Your task to perform on an android device: turn on bluetooth scan Image 0: 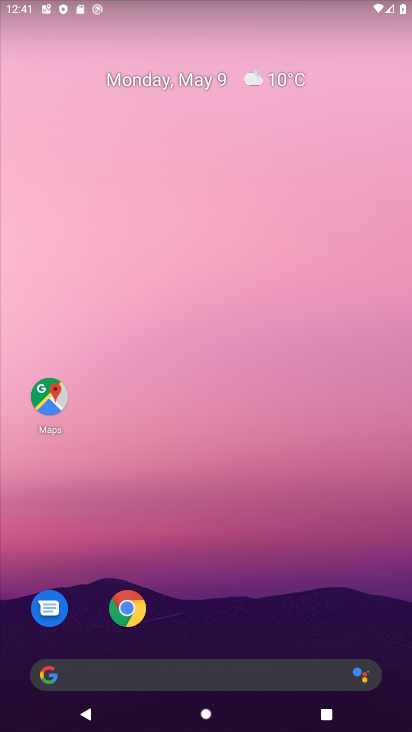
Step 0: drag from (311, 610) to (283, 271)
Your task to perform on an android device: turn on bluetooth scan Image 1: 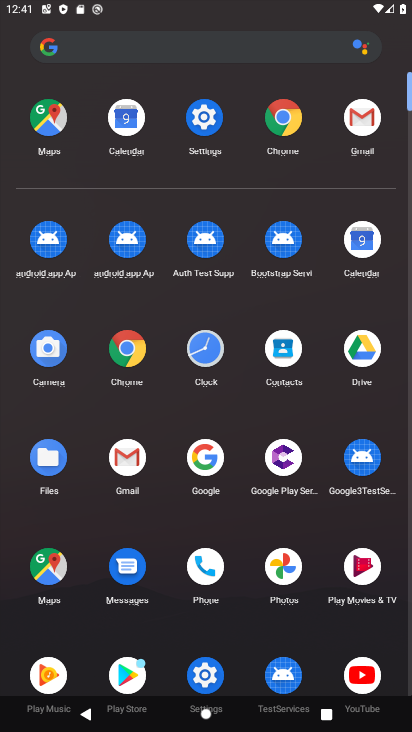
Step 1: click (192, 137)
Your task to perform on an android device: turn on bluetooth scan Image 2: 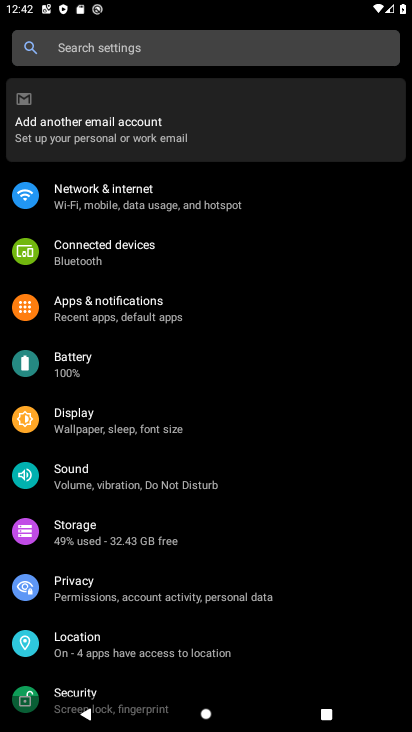
Step 2: click (134, 620)
Your task to perform on an android device: turn on bluetooth scan Image 3: 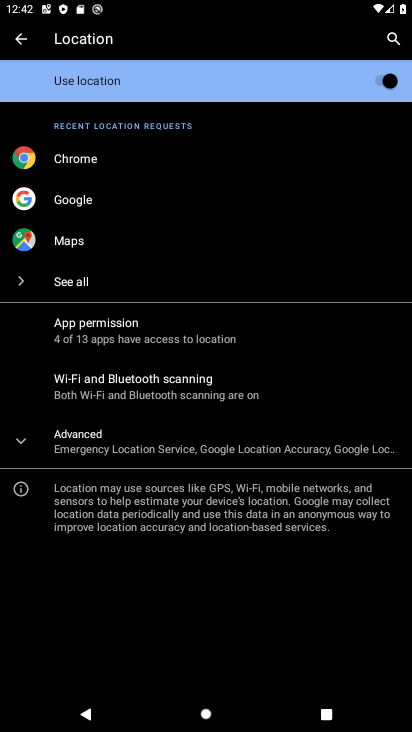
Step 3: click (125, 429)
Your task to perform on an android device: turn on bluetooth scan Image 4: 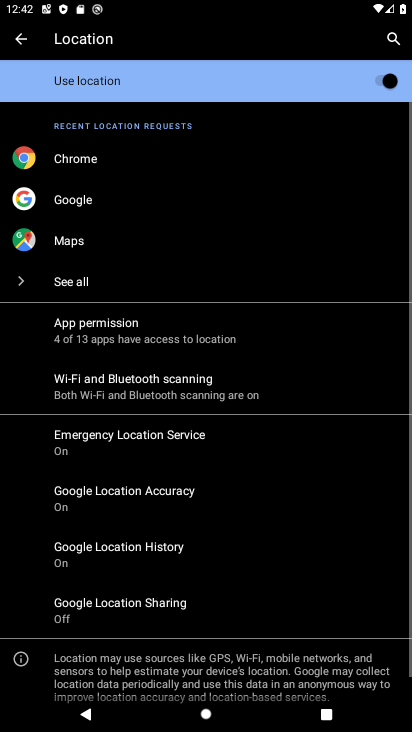
Step 4: click (158, 387)
Your task to perform on an android device: turn on bluetooth scan Image 5: 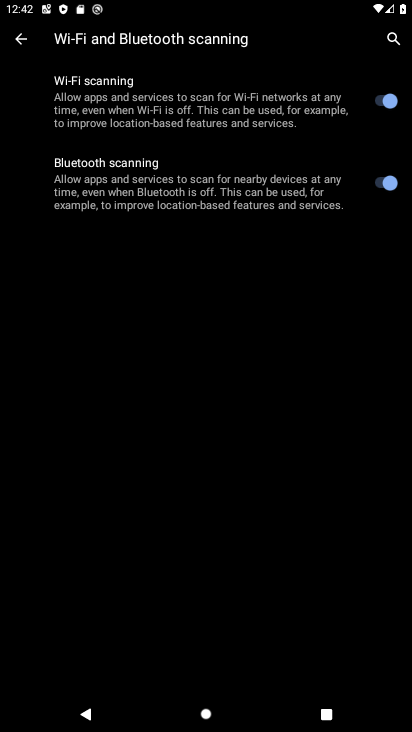
Step 5: task complete